Your task to perform on an android device: Check the weather Image 0: 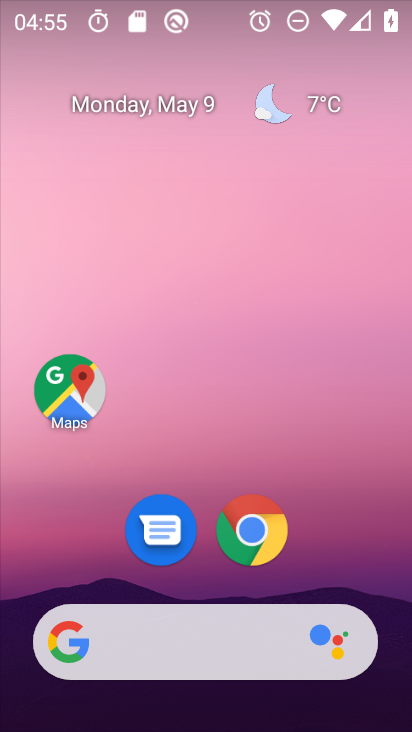
Step 0: click (277, 120)
Your task to perform on an android device: Check the weather Image 1: 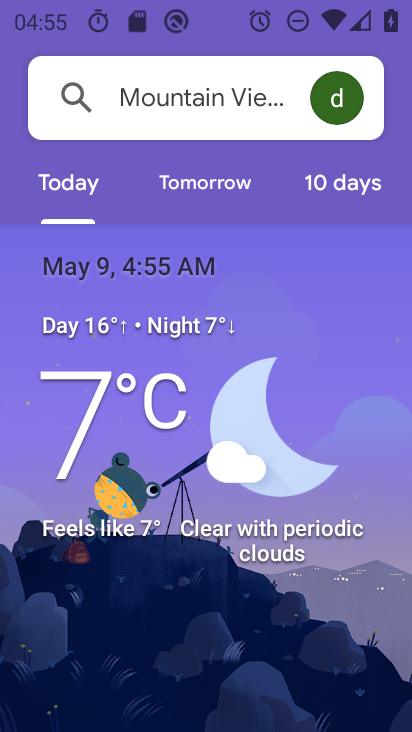
Step 1: task complete